Your task to perform on an android device: open chrome and create a bookmark for the current page Image 0: 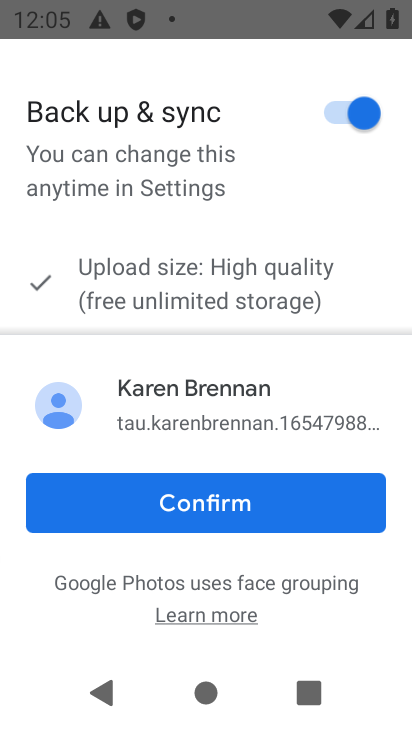
Step 0: press home button
Your task to perform on an android device: open chrome and create a bookmark for the current page Image 1: 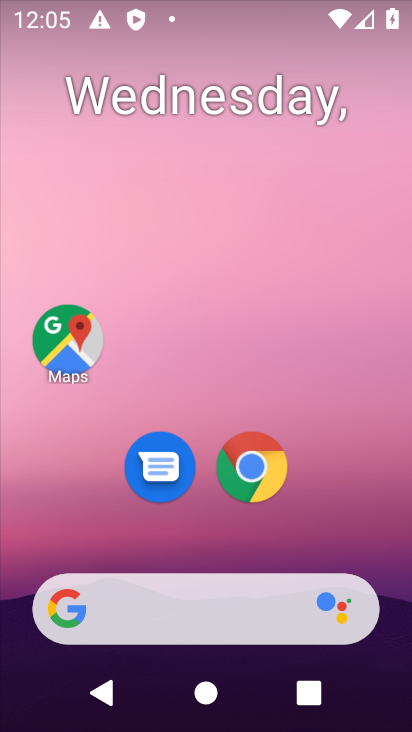
Step 1: click (244, 460)
Your task to perform on an android device: open chrome and create a bookmark for the current page Image 2: 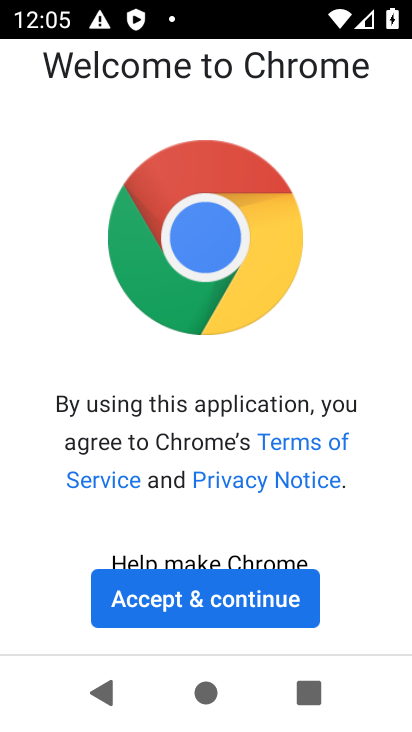
Step 2: click (237, 568)
Your task to perform on an android device: open chrome and create a bookmark for the current page Image 3: 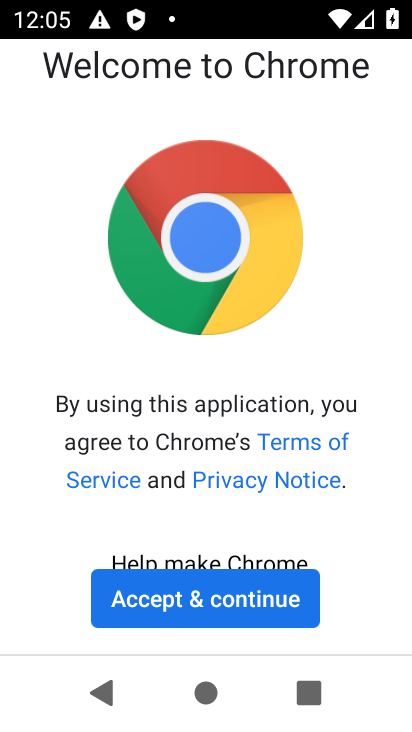
Step 3: click (291, 615)
Your task to perform on an android device: open chrome and create a bookmark for the current page Image 4: 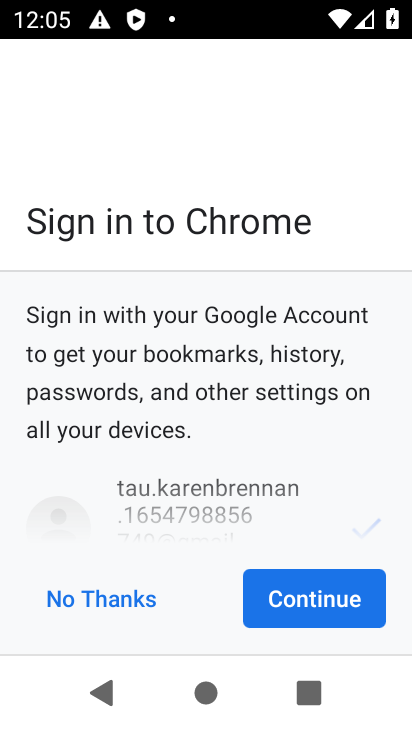
Step 4: click (259, 608)
Your task to perform on an android device: open chrome and create a bookmark for the current page Image 5: 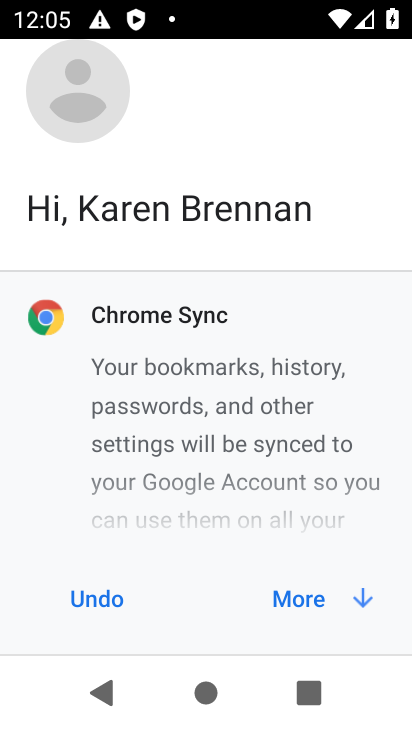
Step 5: click (306, 595)
Your task to perform on an android device: open chrome and create a bookmark for the current page Image 6: 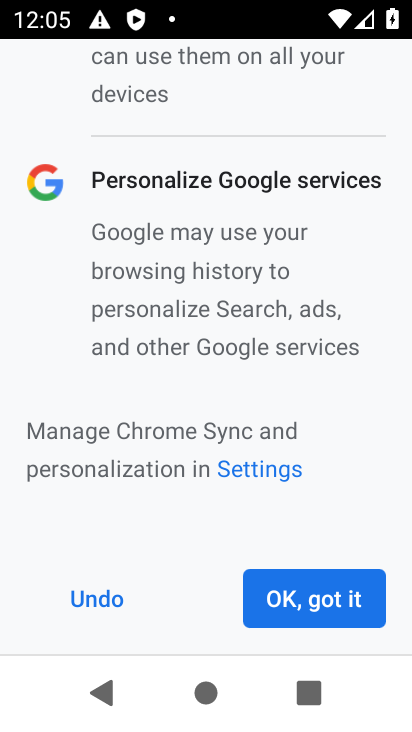
Step 6: click (306, 595)
Your task to perform on an android device: open chrome and create a bookmark for the current page Image 7: 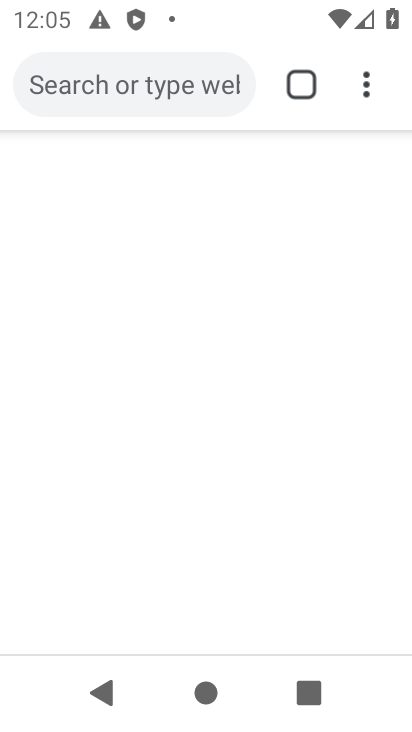
Step 7: click (306, 595)
Your task to perform on an android device: open chrome and create a bookmark for the current page Image 8: 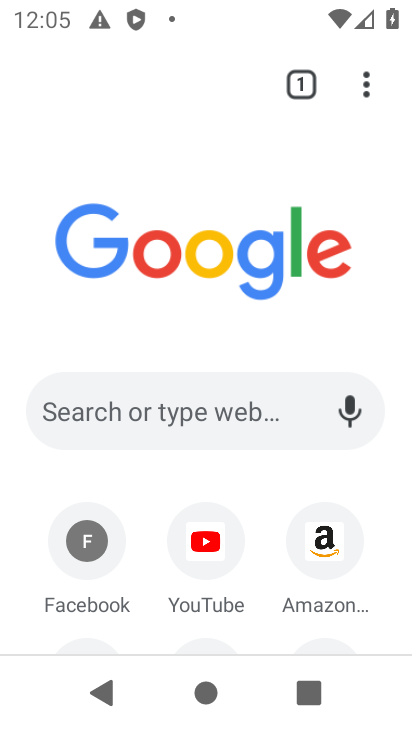
Step 8: click (378, 93)
Your task to perform on an android device: open chrome and create a bookmark for the current page Image 9: 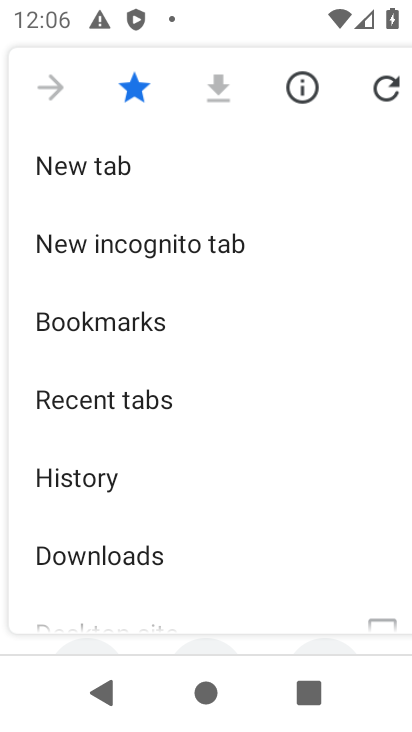
Step 9: task complete